Your task to perform on an android device: Find coffee shops on Maps Image 0: 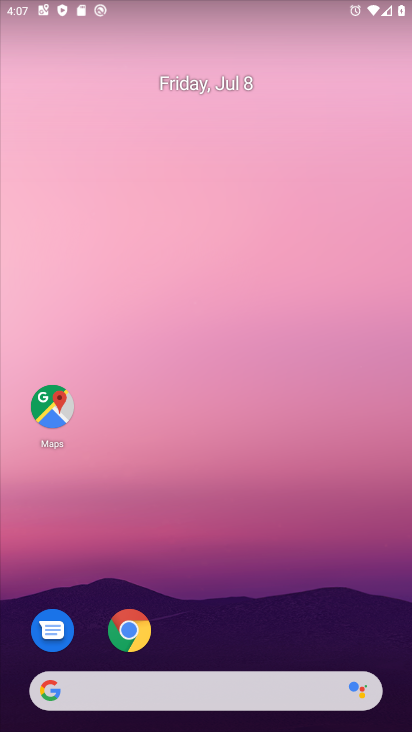
Step 0: click (51, 404)
Your task to perform on an android device: Find coffee shops on Maps Image 1: 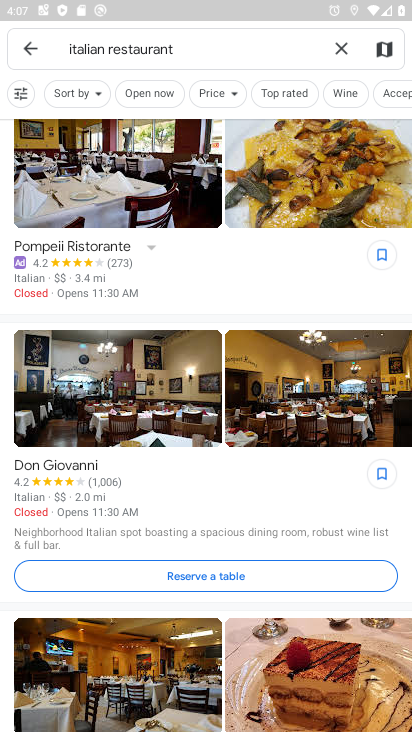
Step 1: click (338, 48)
Your task to perform on an android device: Find coffee shops on Maps Image 2: 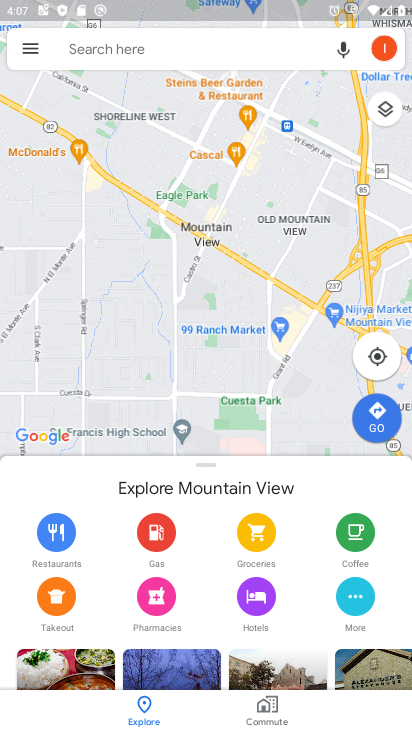
Step 2: click (241, 37)
Your task to perform on an android device: Find coffee shops on Maps Image 3: 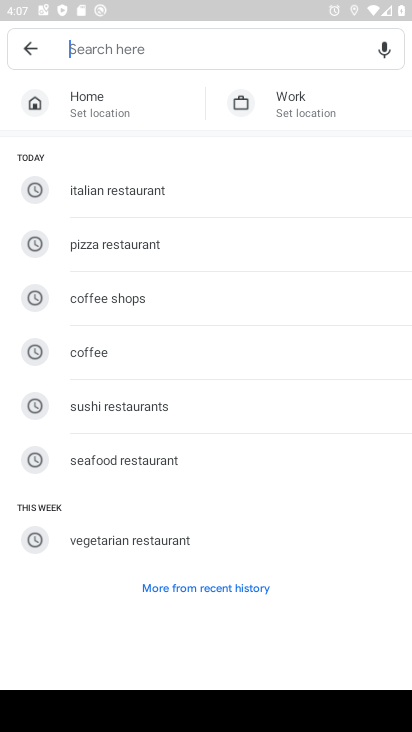
Step 3: type "coffee shops"
Your task to perform on an android device: Find coffee shops on Maps Image 4: 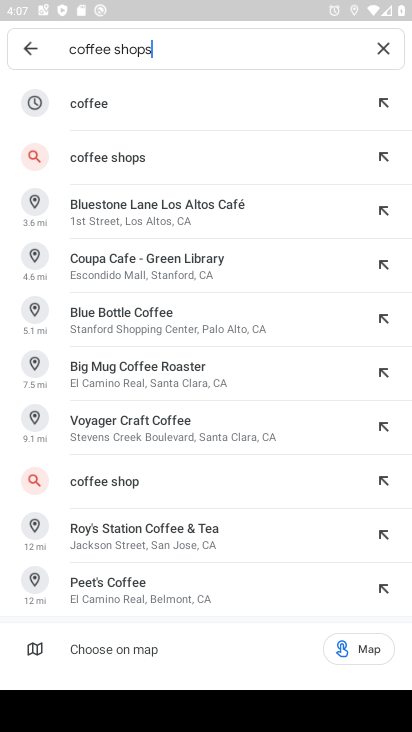
Step 4: click (116, 154)
Your task to perform on an android device: Find coffee shops on Maps Image 5: 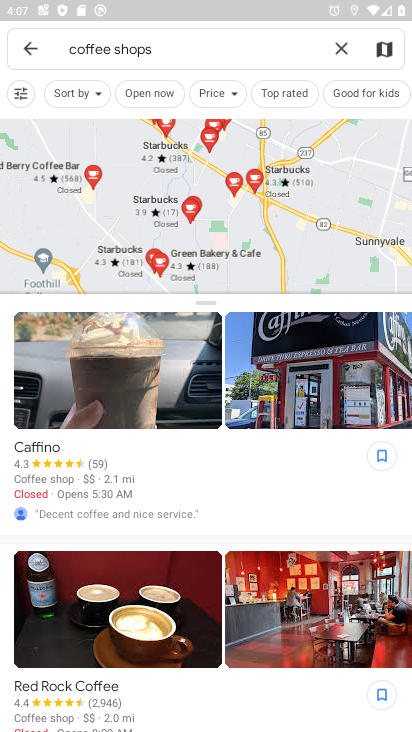
Step 5: task complete